Your task to perform on an android device: Open Google Chrome Image 0: 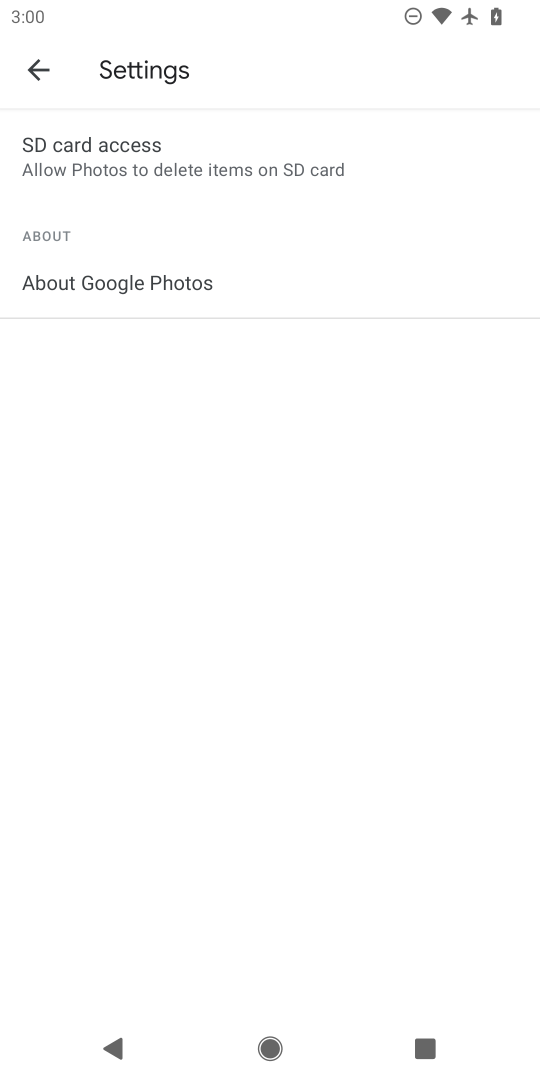
Step 0: press home button
Your task to perform on an android device: Open Google Chrome Image 1: 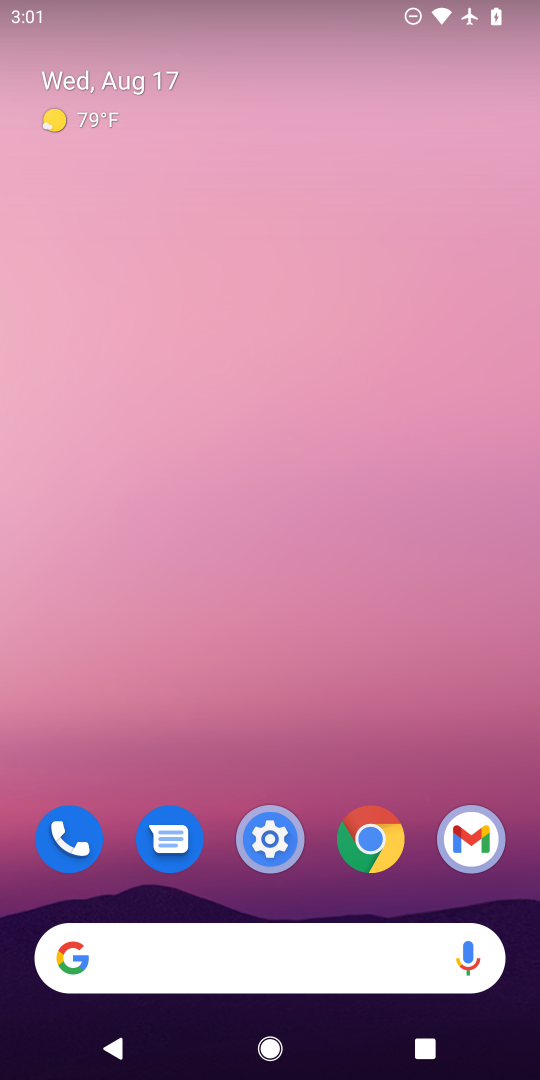
Step 1: click (361, 835)
Your task to perform on an android device: Open Google Chrome Image 2: 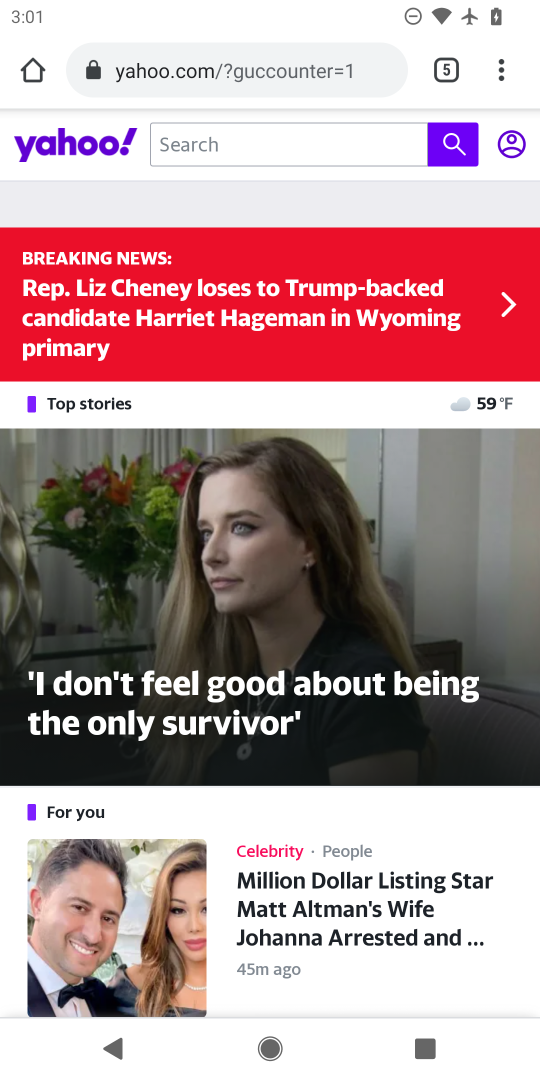
Step 2: task complete